Your task to perform on an android device: see creations saved in the google photos Image 0: 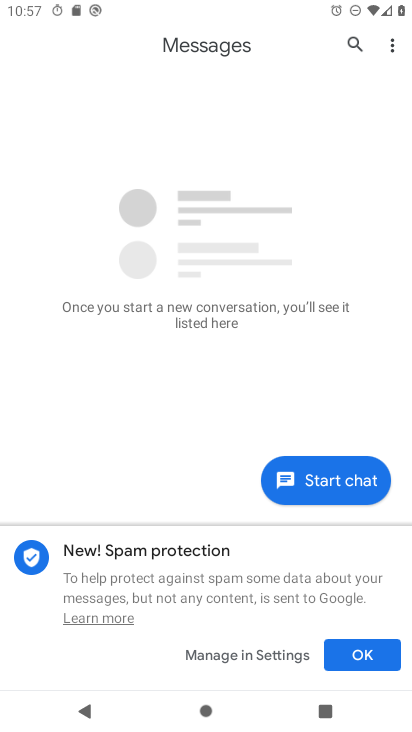
Step 0: press back button
Your task to perform on an android device: see creations saved in the google photos Image 1: 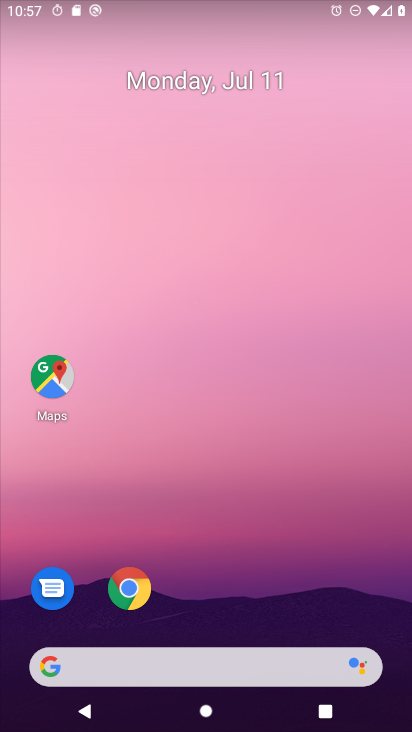
Step 1: drag from (242, 577) to (298, 31)
Your task to perform on an android device: see creations saved in the google photos Image 2: 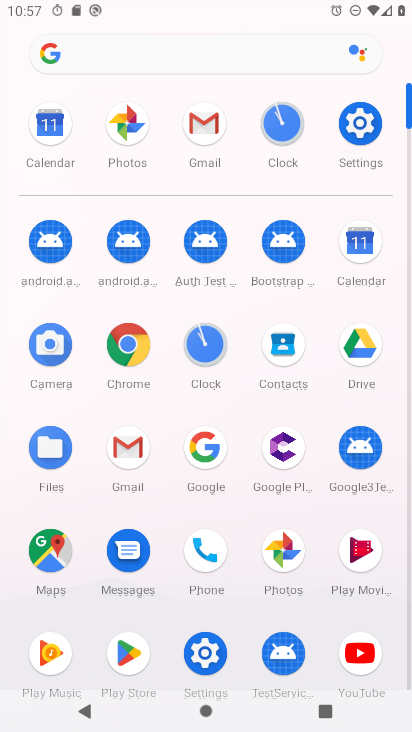
Step 2: click (283, 570)
Your task to perform on an android device: see creations saved in the google photos Image 3: 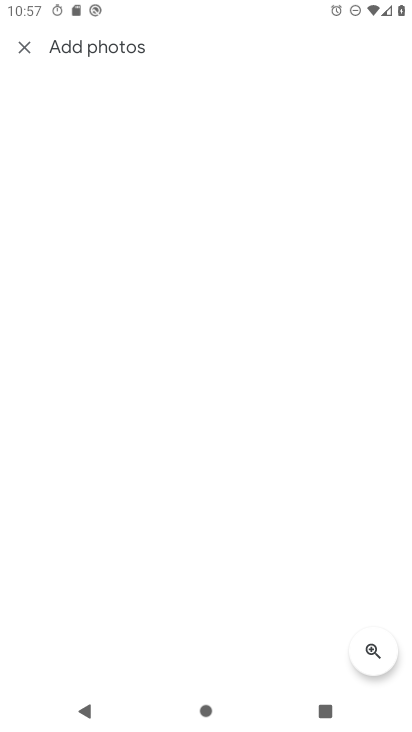
Step 3: click (23, 52)
Your task to perform on an android device: see creations saved in the google photos Image 4: 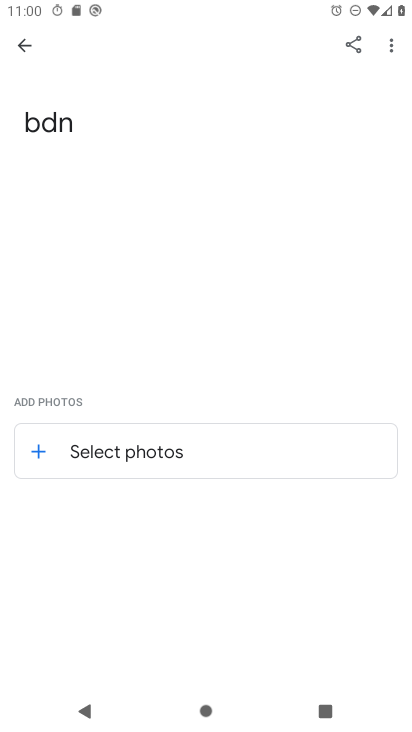
Step 4: press back button
Your task to perform on an android device: see creations saved in the google photos Image 5: 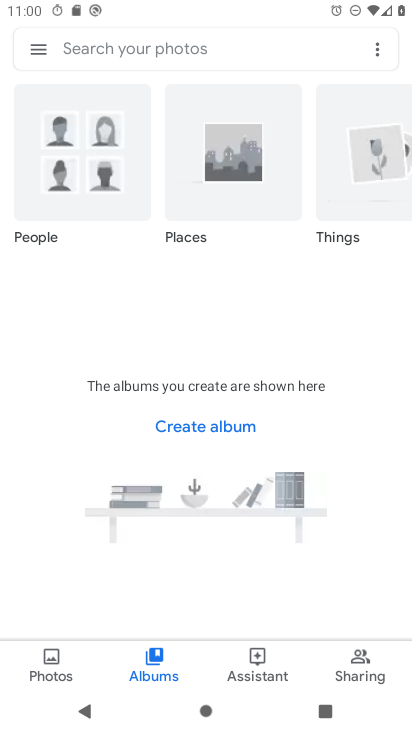
Step 5: click (37, 55)
Your task to perform on an android device: see creations saved in the google photos Image 6: 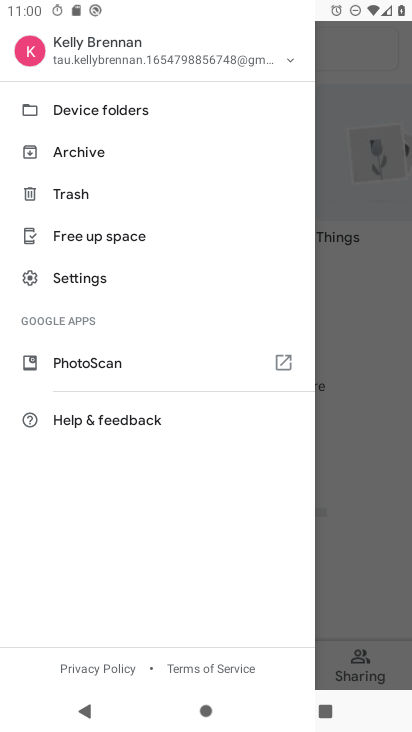
Step 6: click (94, 152)
Your task to perform on an android device: see creations saved in the google photos Image 7: 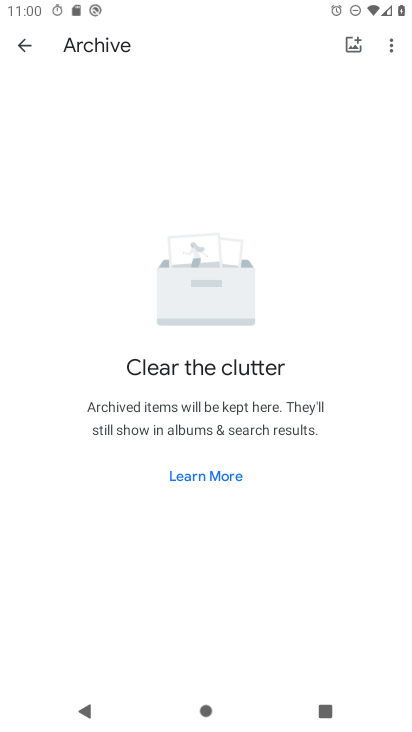
Step 7: task complete